Your task to perform on an android device: Add logitech g502 to the cart on target, then select checkout. Image 0: 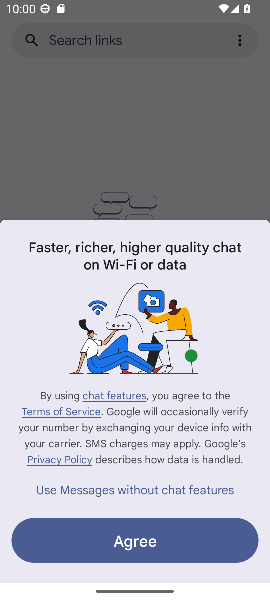
Step 0: press home button
Your task to perform on an android device: Add logitech g502 to the cart on target, then select checkout. Image 1: 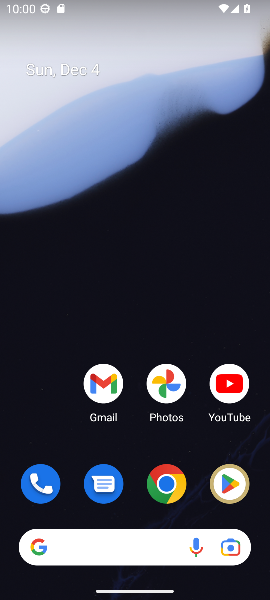
Step 1: click (168, 498)
Your task to perform on an android device: Add logitech g502 to the cart on target, then select checkout. Image 2: 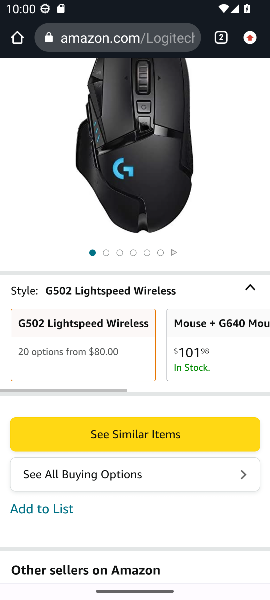
Step 2: click (121, 34)
Your task to perform on an android device: Add logitech g502 to the cart on target, then select checkout. Image 3: 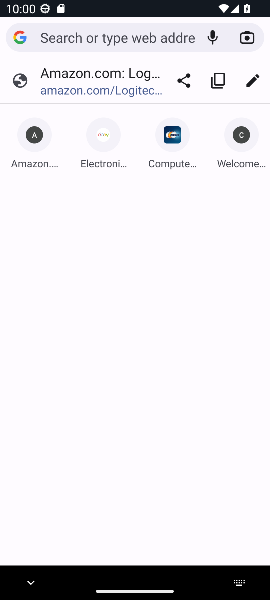
Step 3: type "target.com"
Your task to perform on an android device: Add logitech g502 to the cart on target, then select checkout. Image 4: 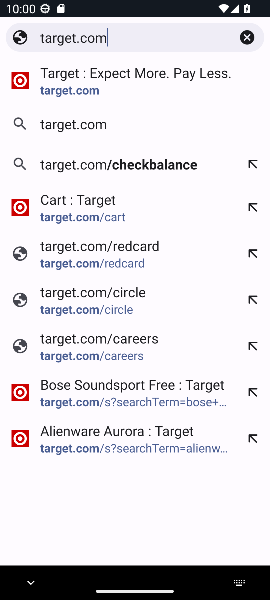
Step 4: click (60, 84)
Your task to perform on an android device: Add logitech g502 to the cart on target, then select checkout. Image 5: 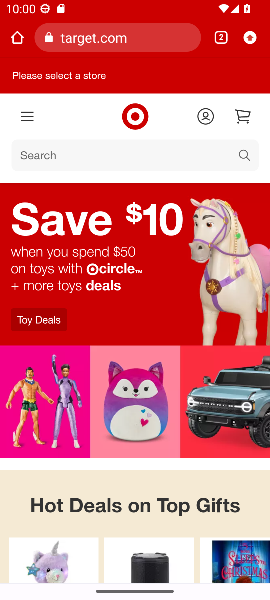
Step 5: click (57, 158)
Your task to perform on an android device: Add logitech g502 to the cart on target, then select checkout. Image 6: 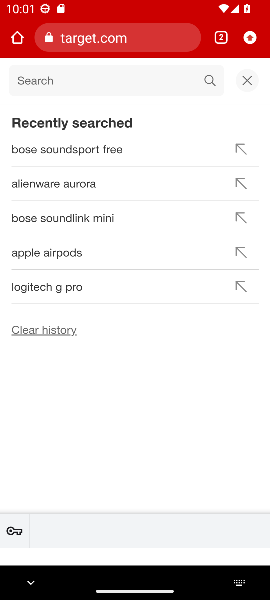
Step 6: type "logitech g502"
Your task to perform on an android device: Add logitech g502 to the cart on target, then select checkout. Image 7: 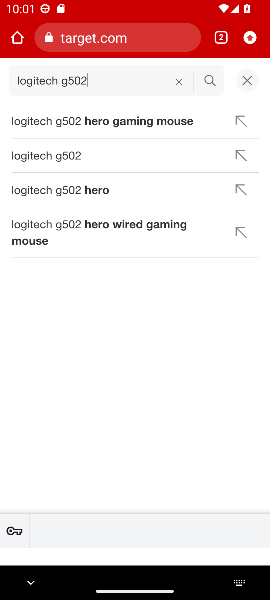
Step 7: click (77, 155)
Your task to perform on an android device: Add logitech g502 to the cart on target, then select checkout. Image 8: 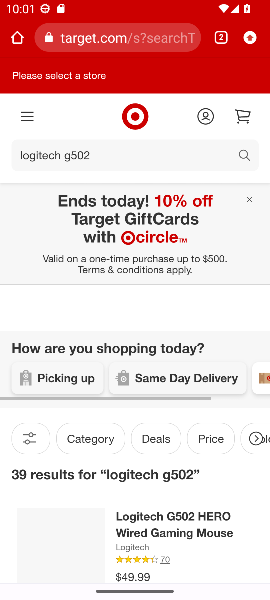
Step 8: drag from (168, 479) to (172, 267)
Your task to perform on an android device: Add logitech g502 to the cart on target, then select checkout. Image 9: 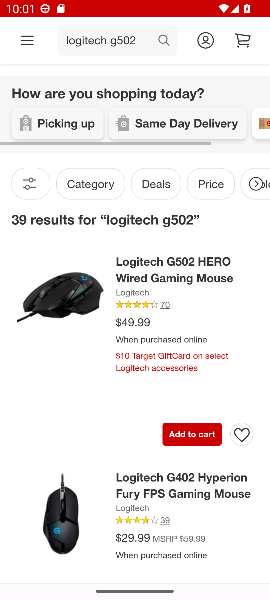
Step 9: click (174, 432)
Your task to perform on an android device: Add logitech g502 to the cart on target, then select checkout. Image 10: 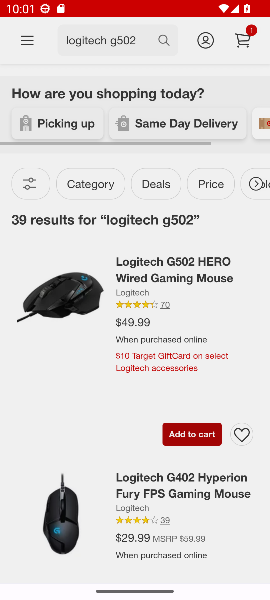
Step 10: click (246, 42)
Your task to perform on an android device: Add logitech g502 to the cart on target, then select checkout. Image 11: 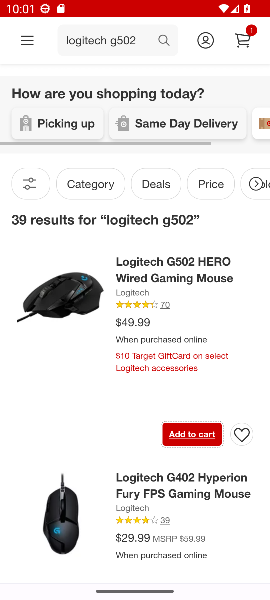
Step 11: click (245, 37)
Your task to perform on an android device: Add logitech g502 to the cart on target, then select checkout. Image 12: 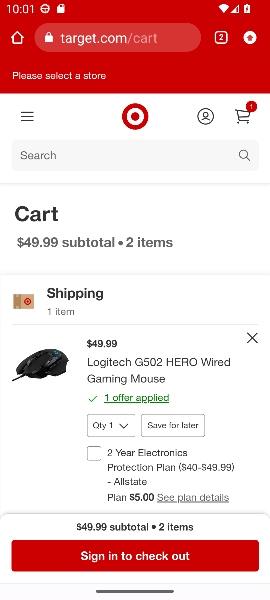
Step 12: click (127, 553)
Your task to perform on an android device: Add logitech g502 to the cart on target, then select checkout. Image 13: 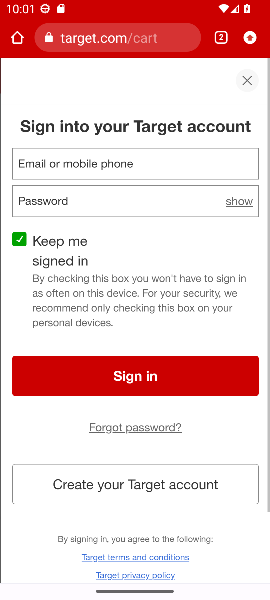
Step 13: task complete